Your task to perform on an android device: Open Google Chrome and open the bookmarks view Image 0: 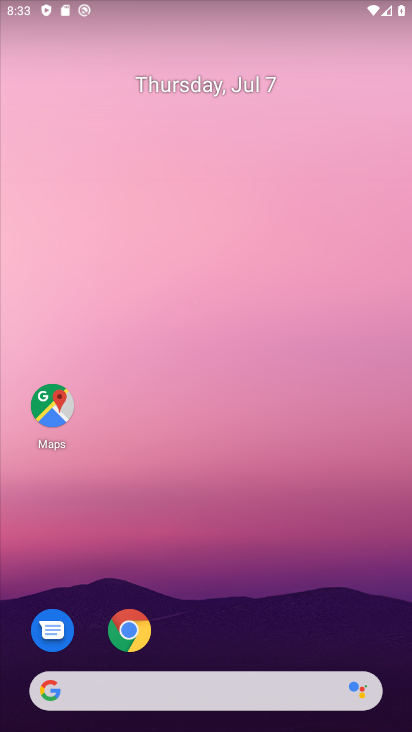
Step 0: click (113, 629)
Your task to perform on an android device: Open Google Chrome and open the bookmarks view Image 1: 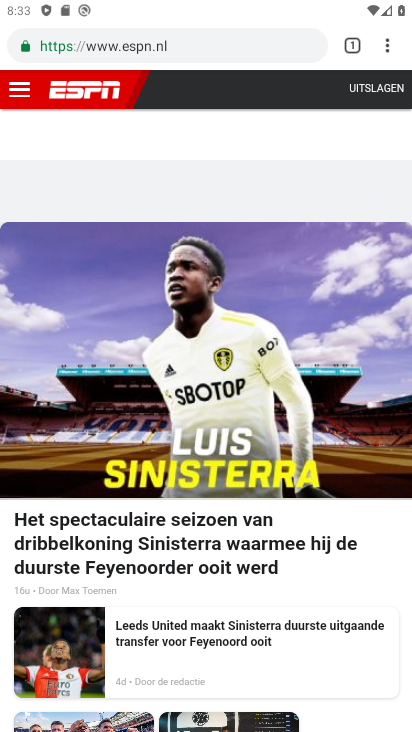
Step 1: click (388, 34)
Your task to perform on an android device: Open Google Chrome and open the bookmarks view Image 2: 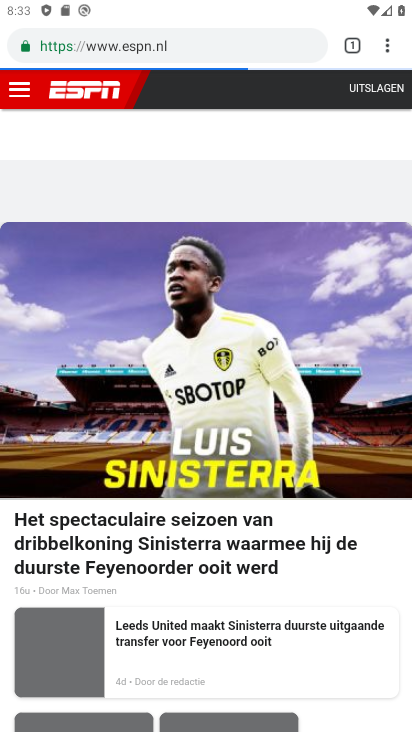
Step 2: click (386, 48)
Your task to perform on an android device: Open Google Chrome and open the bookmarks view Image 3: 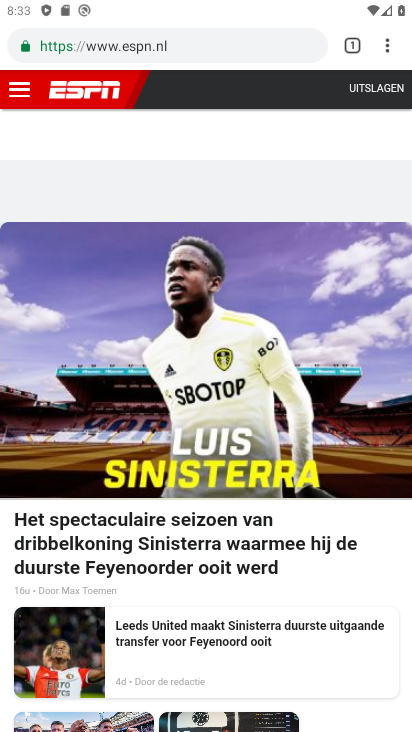
Step 3: task complete